Your task to perform on an android device: Show me the alarms in the clock app Image 0: 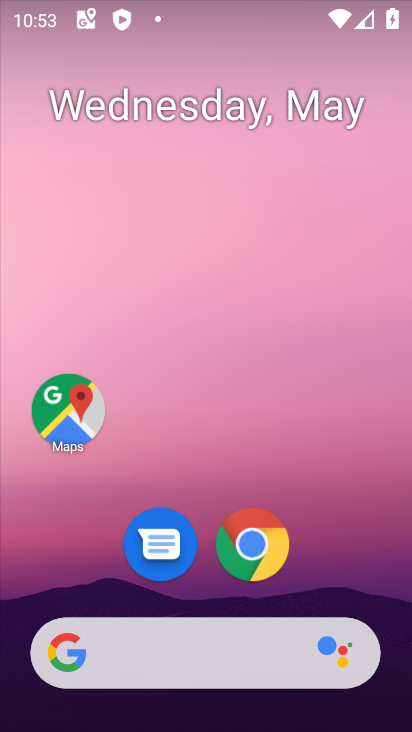
Step 0: drag from (320, 656) to (313, 281)
Your task to perform on an android device: Show me the alarms in the clock app Image 1: 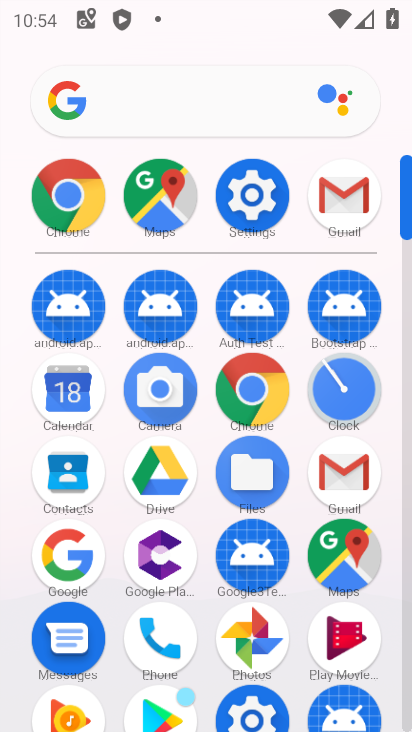
Step 1: click (347, 405)
Your task to perform on an android device: Show me the alarms in the clock app Image 2: 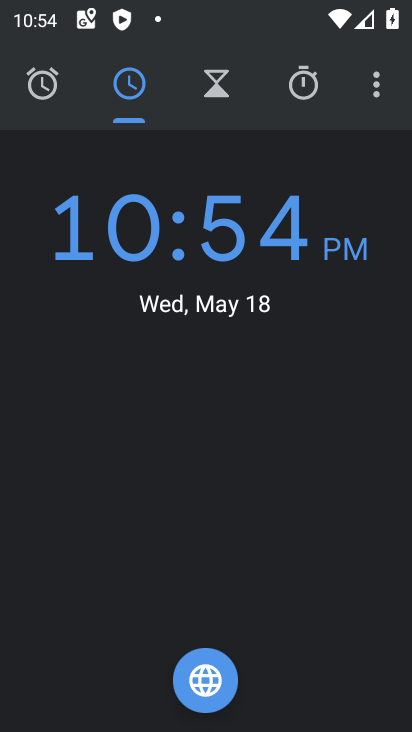
Step 2: click (44, 94)
Your task to perform on an android device: Show me the alarms in the clock app Image 3: 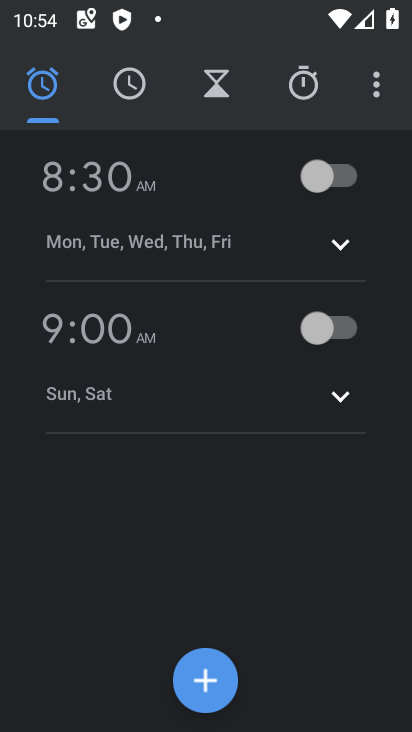
Step 3: task complete